Your task to perform on an android device: Open the phone app and click the voicemail tab. Image 0: 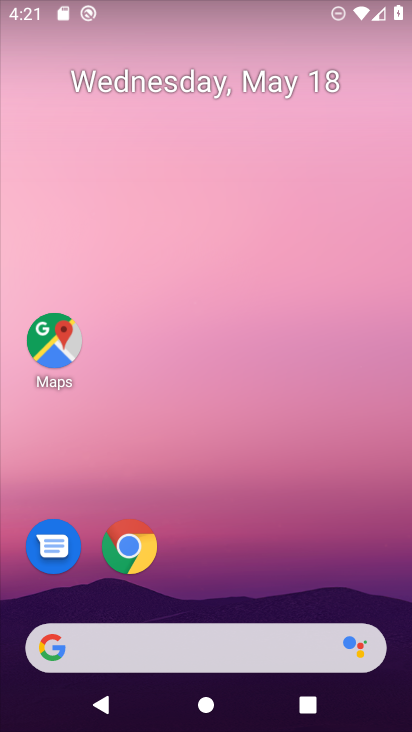
Step 0: drag from (203, 591) to (254, 236)
Your task to perform on an android device: Open the phone app and click the voicemail tab. Image 1: 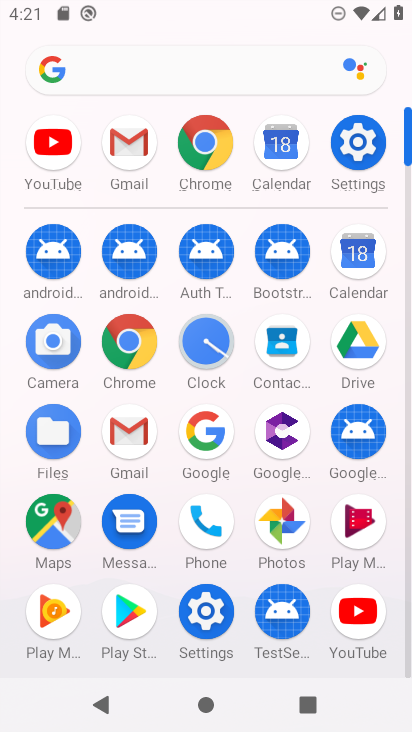
Step 1: click (209, 515)
Your task to perform on an android device: Open the phone app and click the voicemail tab. Image 2: 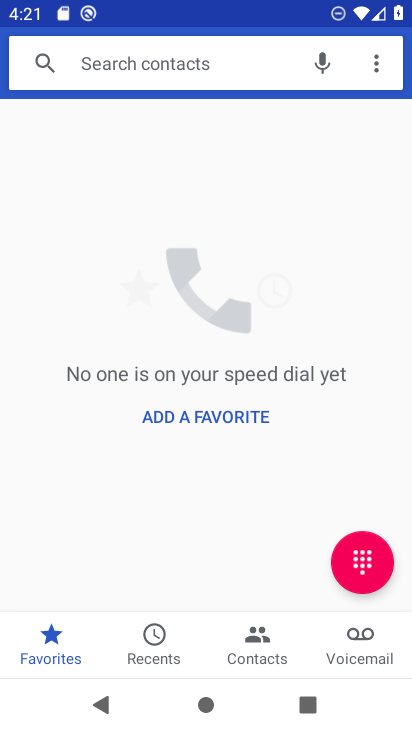
Step 2: click (359, 638)
Your task to perform on an android device: Open the phone app and click the voicemail tab. Image 3: 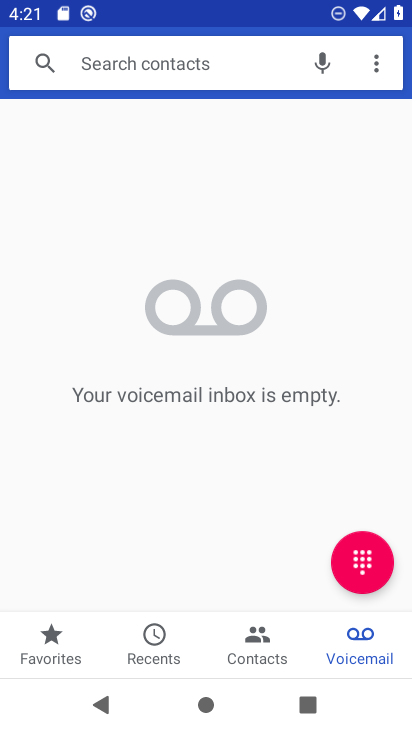
Step 3: task complete